Your task to perform on an android device: check the backup settings in the google photos Image 0: 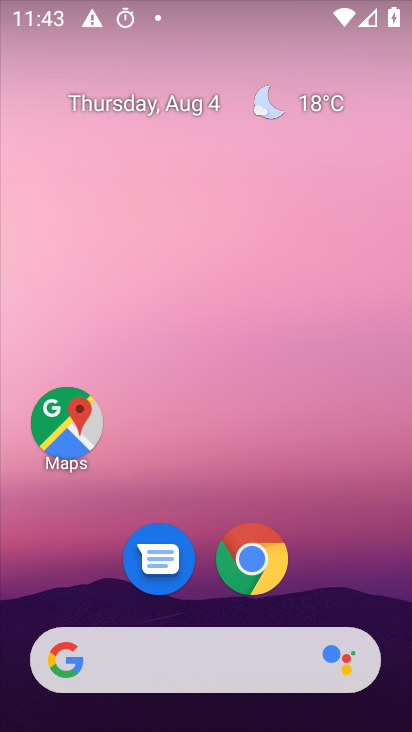
Step 0: drag from (45, 694) to (136, 157)
Your task to perform on an android device: check the backup settings in the google photos Image 1: 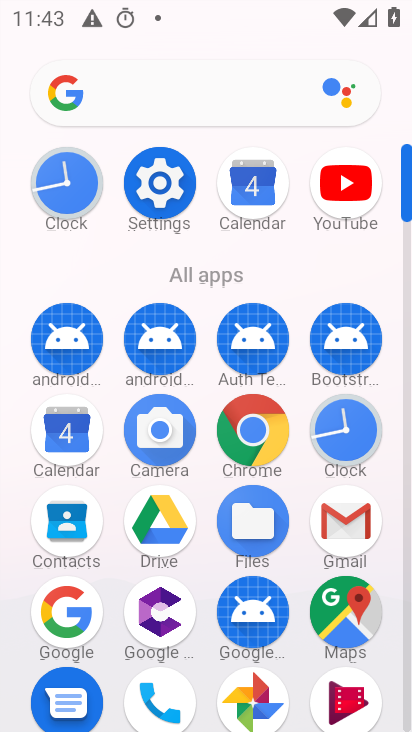
Step 1: click (242, 690)
Your task to perform on an android device: check the backup settings in the google photos Image 2: 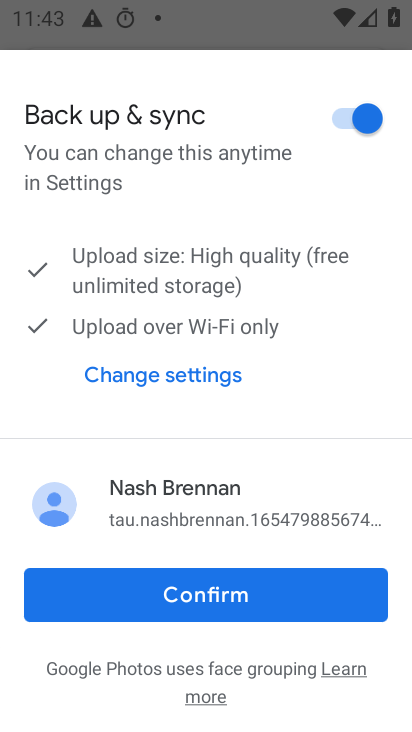
Step 2: click (160, 594)
Your task to perform on an android device: check the backup settings in the google photos Image 3: 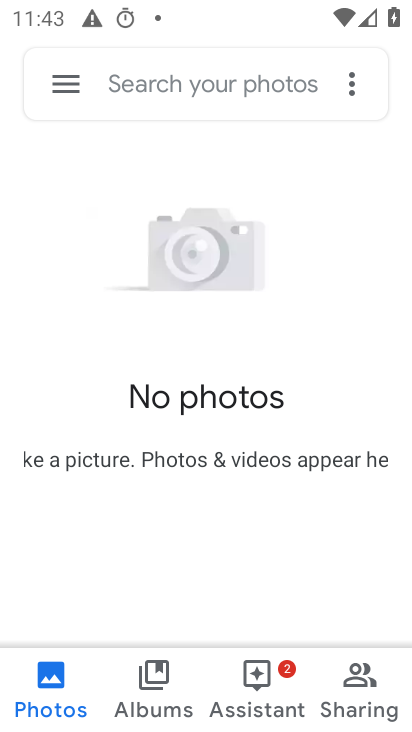
Step 3: click (76, 86)
Your task to perform on an android device: check the backup settings in the google photos Image 4: 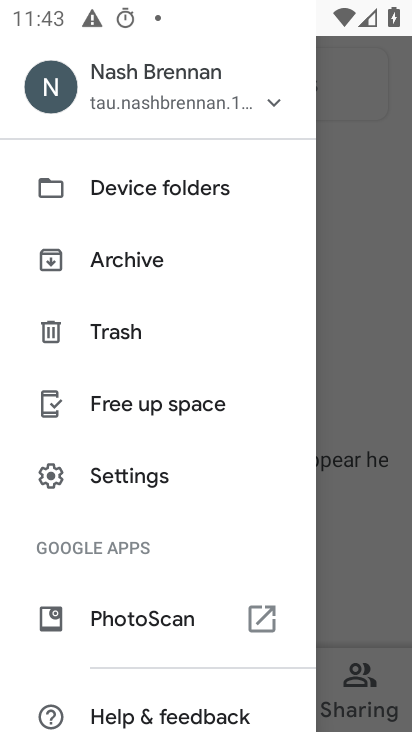
Step 4: click (356, 279)
Your task to perform on an android device: check the backup settings in the google photos Image 5: 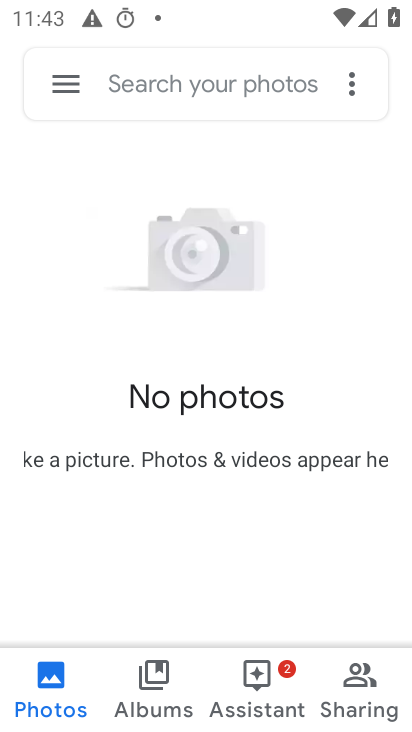
Step 5: task complete